Your task to perform on an android device: turn on translation in the chrome app Image 0: 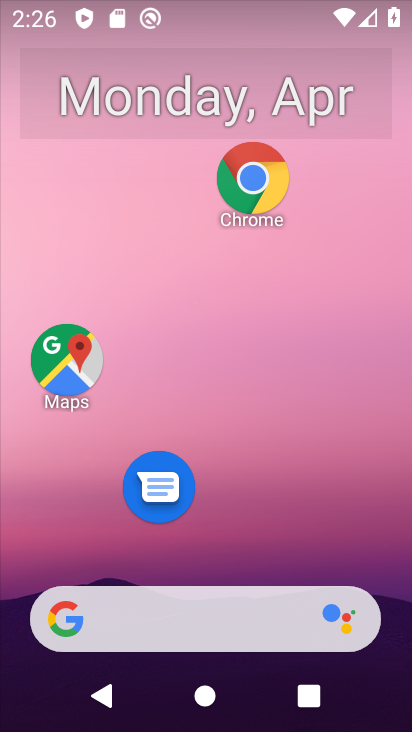
Step 0: drag from (218, 583) to (406, 254)
Your task to perform on an android device: turn on translation in the chrome app Image 1: 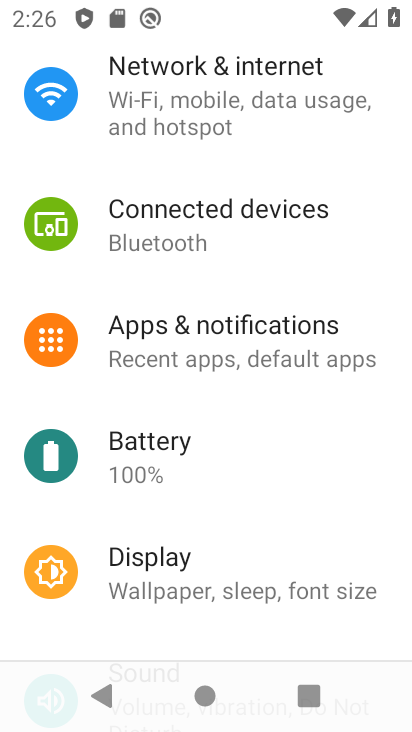
Step 1: press back button
Your task to perform on an android device: turn on translation in the chrome app Image 2: 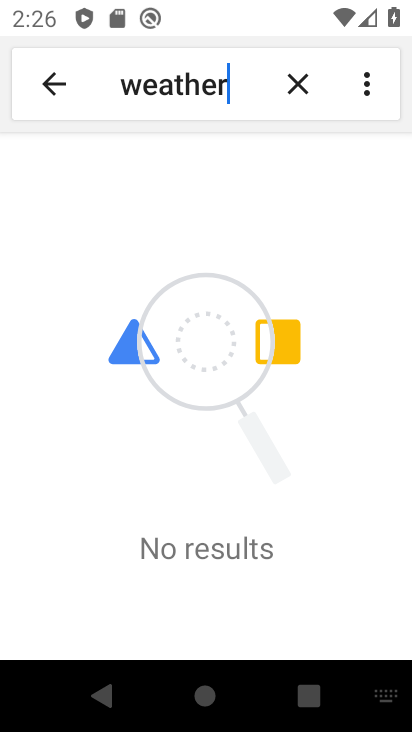
Step 2: press back button
Your task to perform on an android device: turn on translation in the chrome app Image 3: 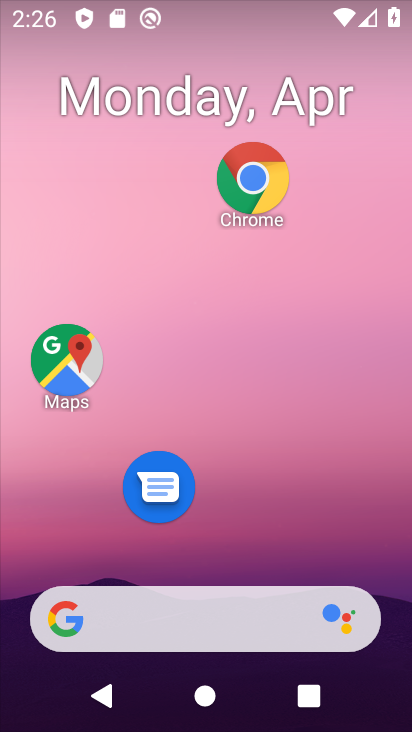
Step 3: click (247, 175)
Your task to perform on an android device: turn on translation in the chrome app Image 4: 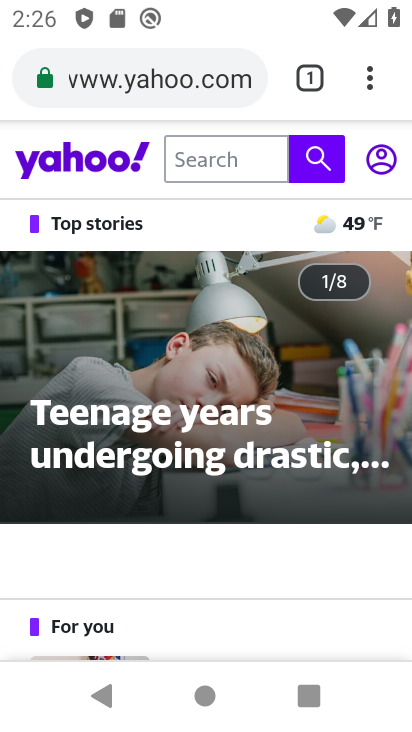
Step 4: click (368, 73)
Your task to perform on an android device: turn on translation in the chrome app Image 5: 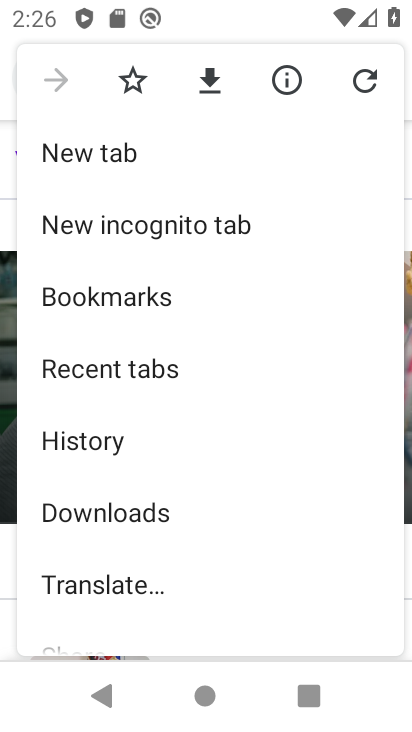
Step 5: drag from (108, 577) to (226, 122)
Your task to perform on an android device: turn on translation in the chrome app Image 6: 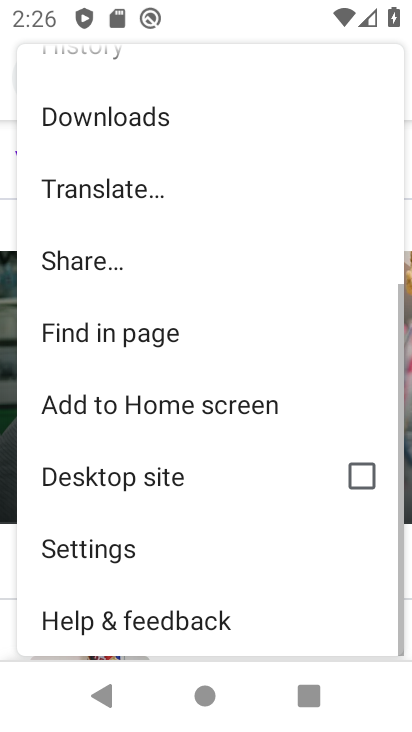
Step 6: drag from (32, 577) to (143, 309)
Your task to perform on an android device: turn on translation in the chrome app Image 7: 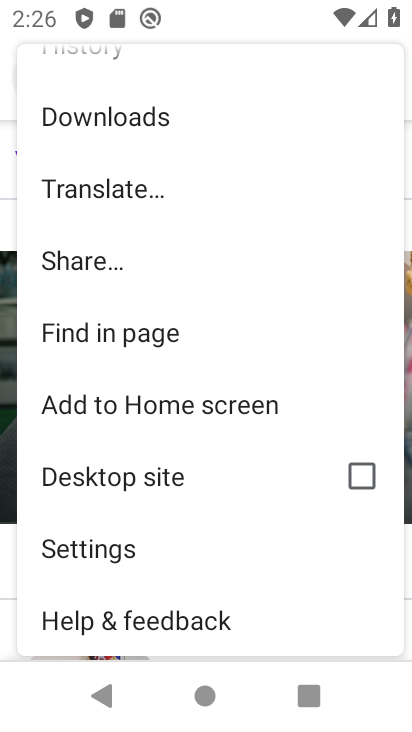
Step 7: click (101, 554)
Your task to perform on an android device: turn on translation in the chrome app Image 8: 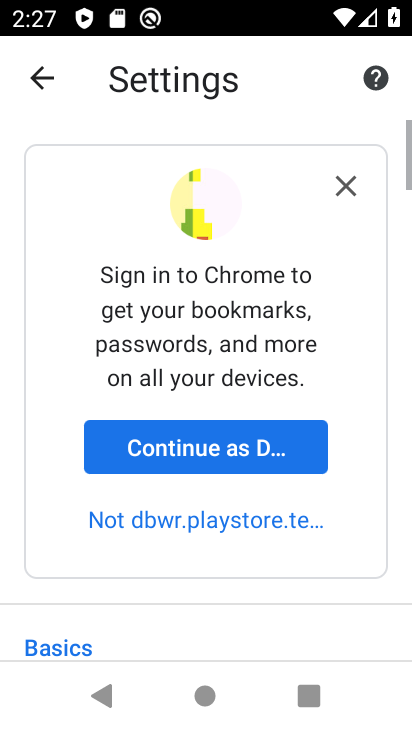
Step 8: drag from (121, 476) to (262, 68)
Your task to perform on an android device: turn on translation in the chrome app Image 9: 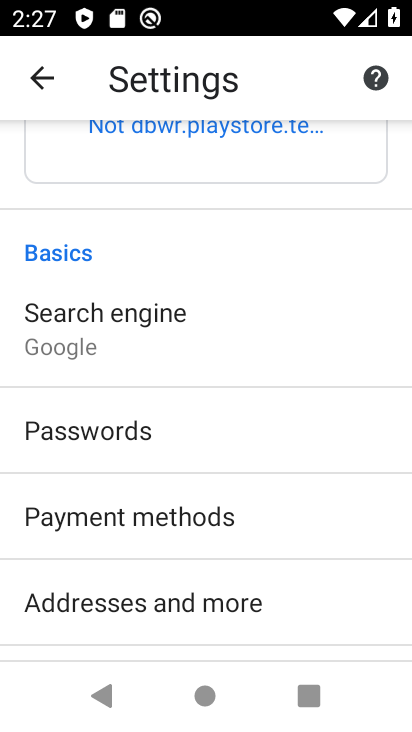
Step 9: drag from (141, 624) to (385, 7)
Your task to perform on an android device: turn on translation in the chrome app Image 10: 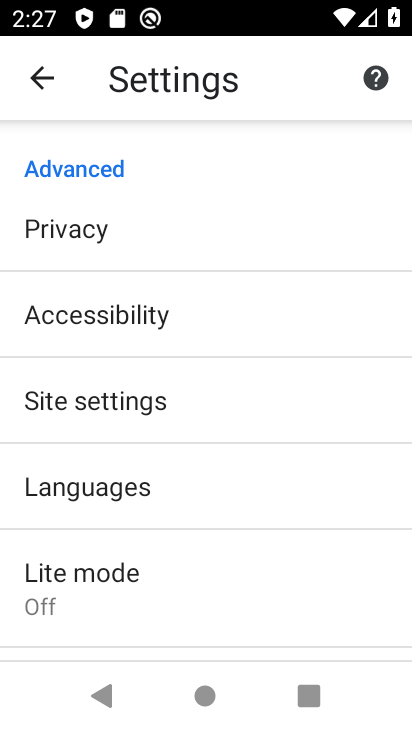
Step 10: click (153, 494)
Your task to perform on an android device: turn on translation in the chrome app Image 11: 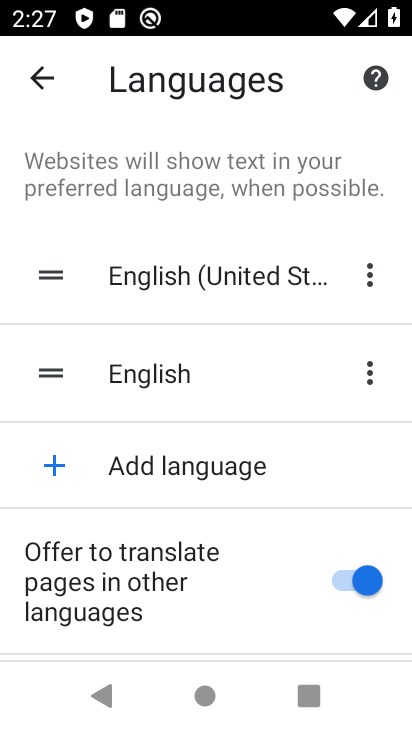
Step 11: task complete